Your task to perform on an android device: check storage Image 0: 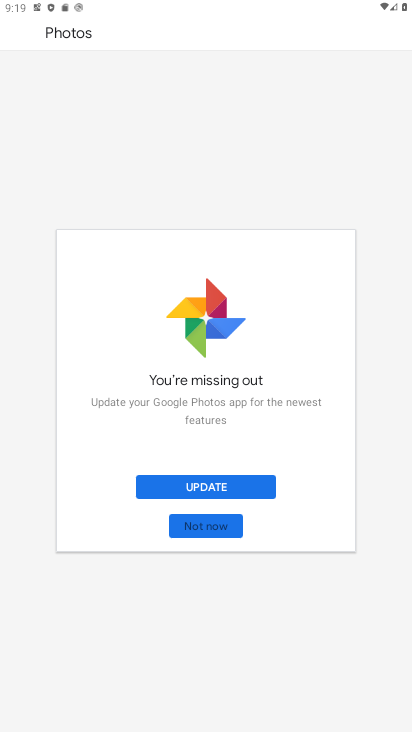
Step 0: press home button
Your task to perform on an android device: check storage Image 1: 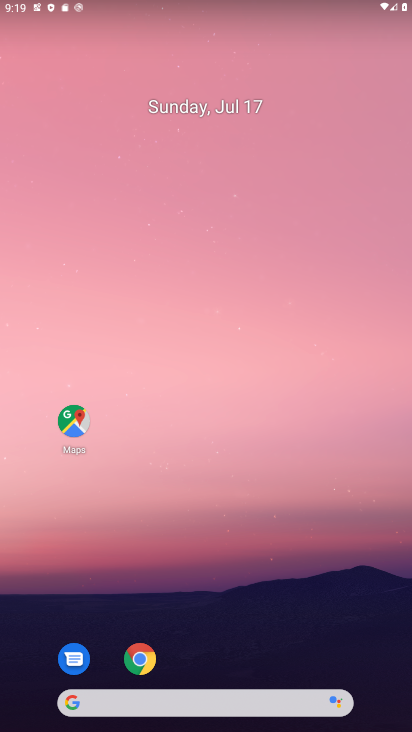
Step 1: drag from (222, 659) to (204, 186)
Your task to perform on an android device: check storage Image 2: 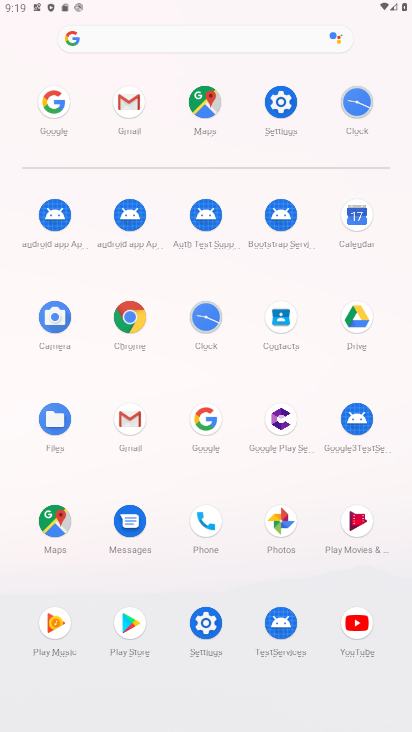
Step 2: click (274, 120)
Your task to perform on an android device: check storage Image 3: 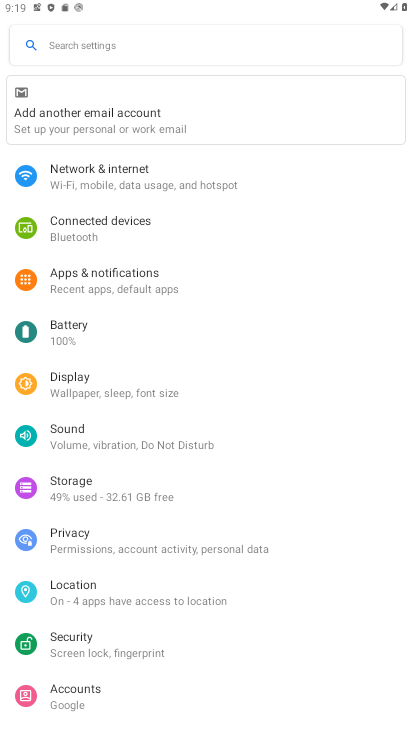
Step 3: click (150, 493)
Your task to perform on an android device: check storage Image 4: 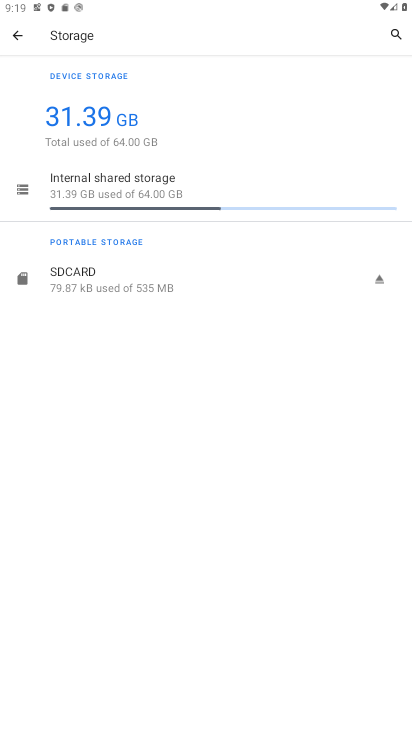
Step 4: click (181, 194)
Your task to perform on an android device: check storage Image 5: 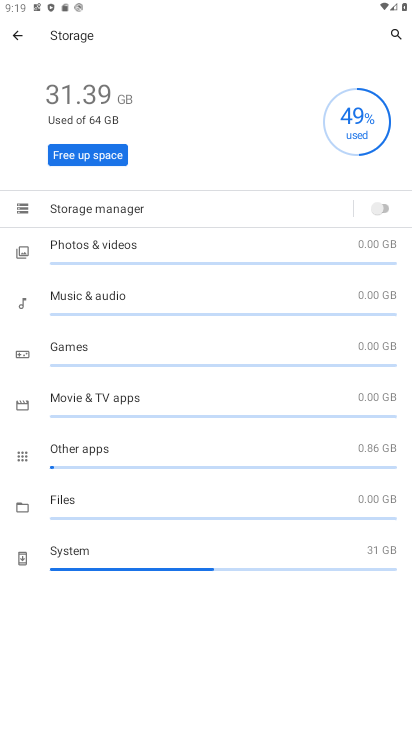
Step 5: task complete